Your task to perform on an android device: open a new tab in the chrome app Image 0: 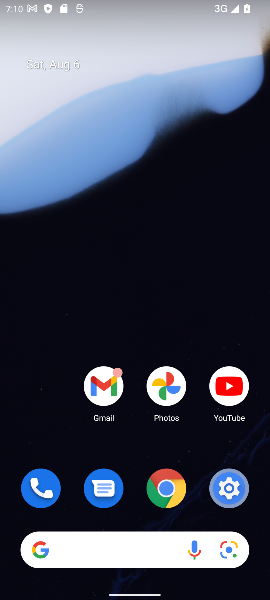
Step 0: click (172, 491)
Your task to perform on an android device: open a new tab in the chrome app Image 1: 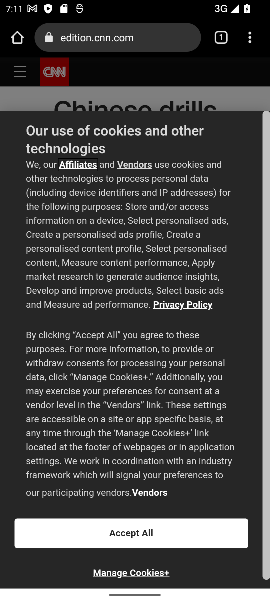
Step 1: click (222, 38)
Your task to perform on an android device: open a new tab in the chrome app Image 2: 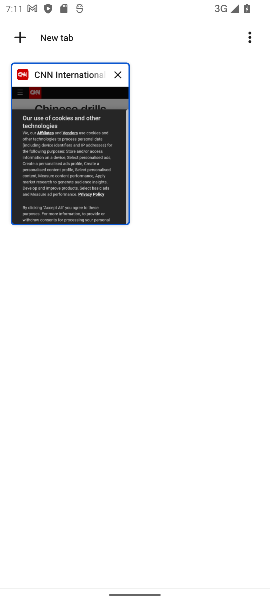
Step 2: click (22, 36)
Your task to perform on an android device: open a new tab in the chrome app Image 3: 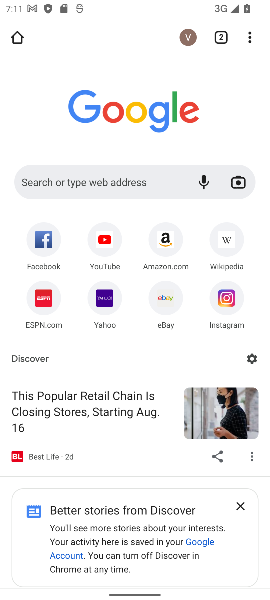
Step 3: task complete